Your task to perform on an android device: Clear the cart on walmart.com. Add "jbl flip 4" to the cart on walmart.com, then select checkout. Image 0: 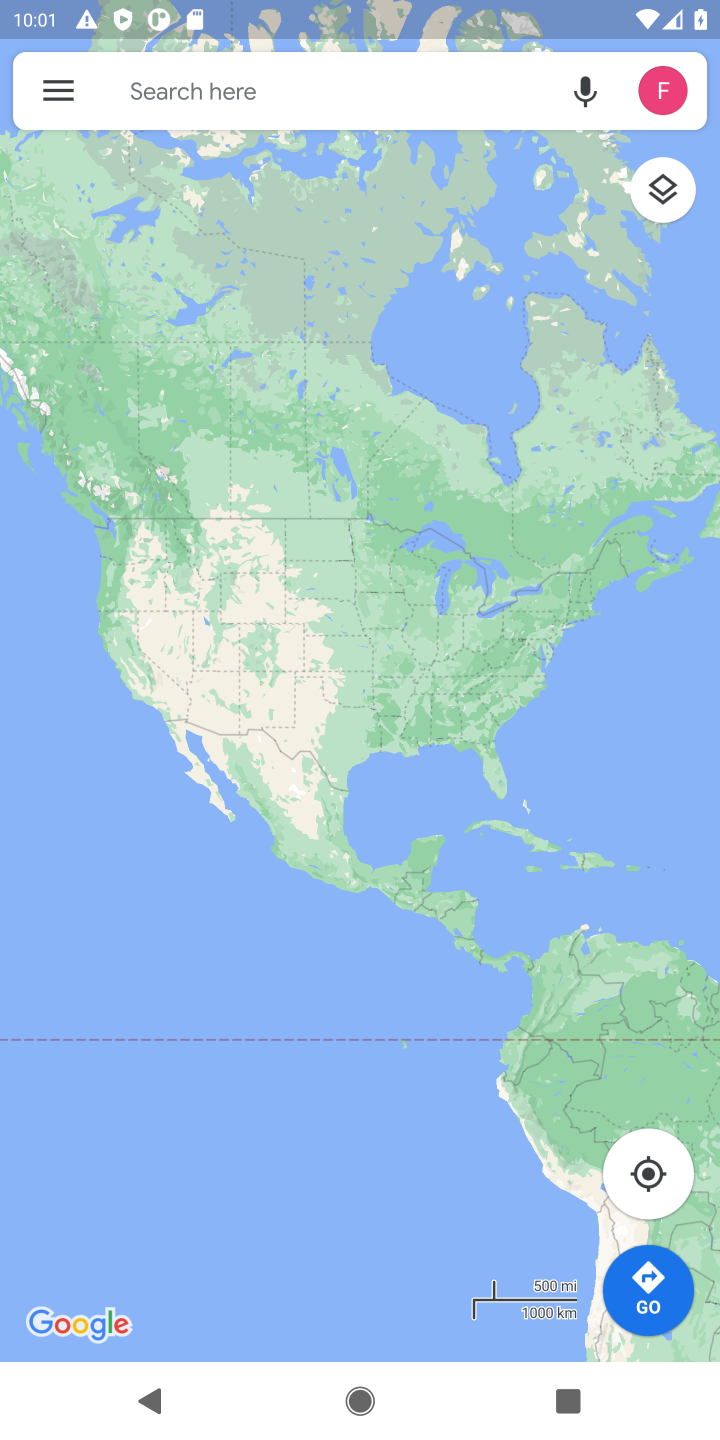
Step 0: press home button
Your task to perform on an android device: Clear the cart on walmart.com. Add "jbl flip 4" to the cart on walmart.com, then select checkout. Image 1: 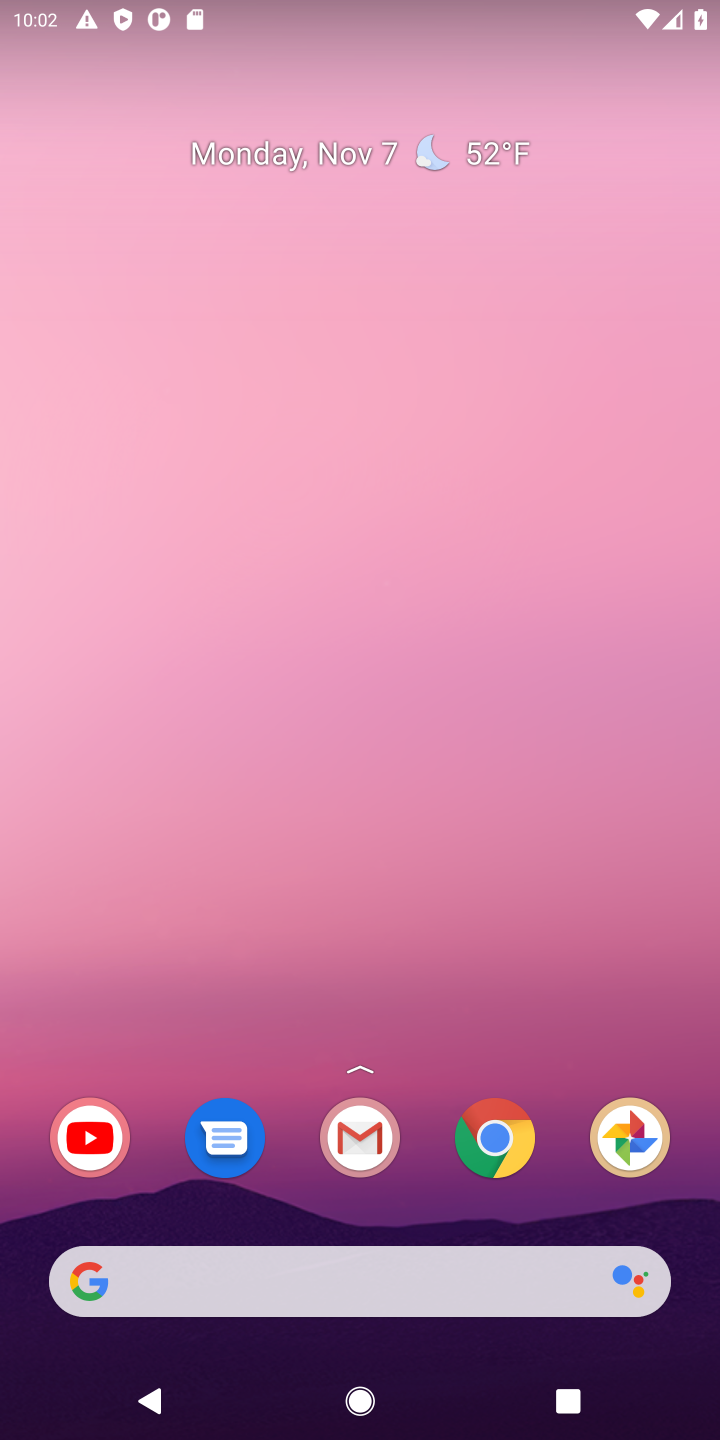
Step 1: click (522, 1128)
Your task to perform on an android device: Clear the cart on walmart.com. Add "jbl flip 4" to the cart on walmart.com, then select checkout. Image 2: 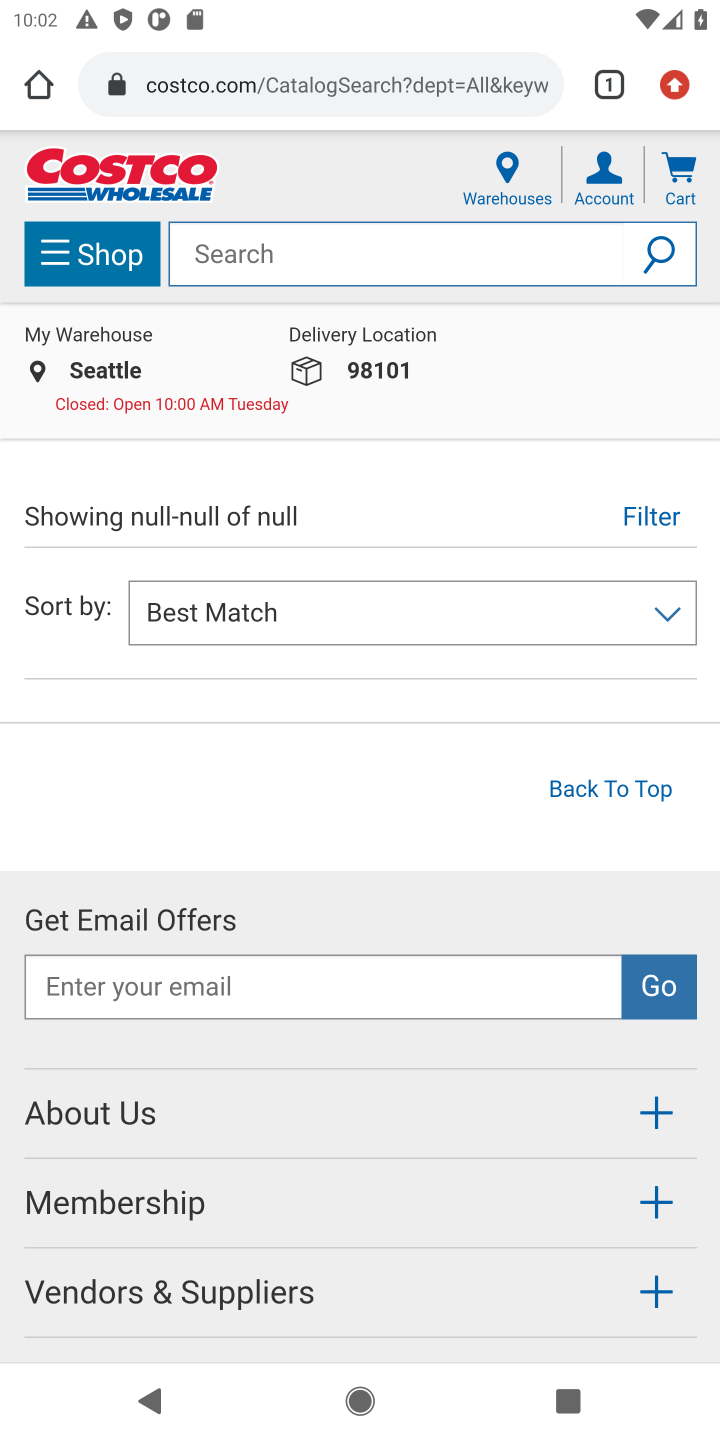
Step 2: click (282, 85)
Your task to perform on an android device: Clear the cart on walmart.com. Add "jbl flip 4" to the cart on walmart.com, then select checkout. Image 3: 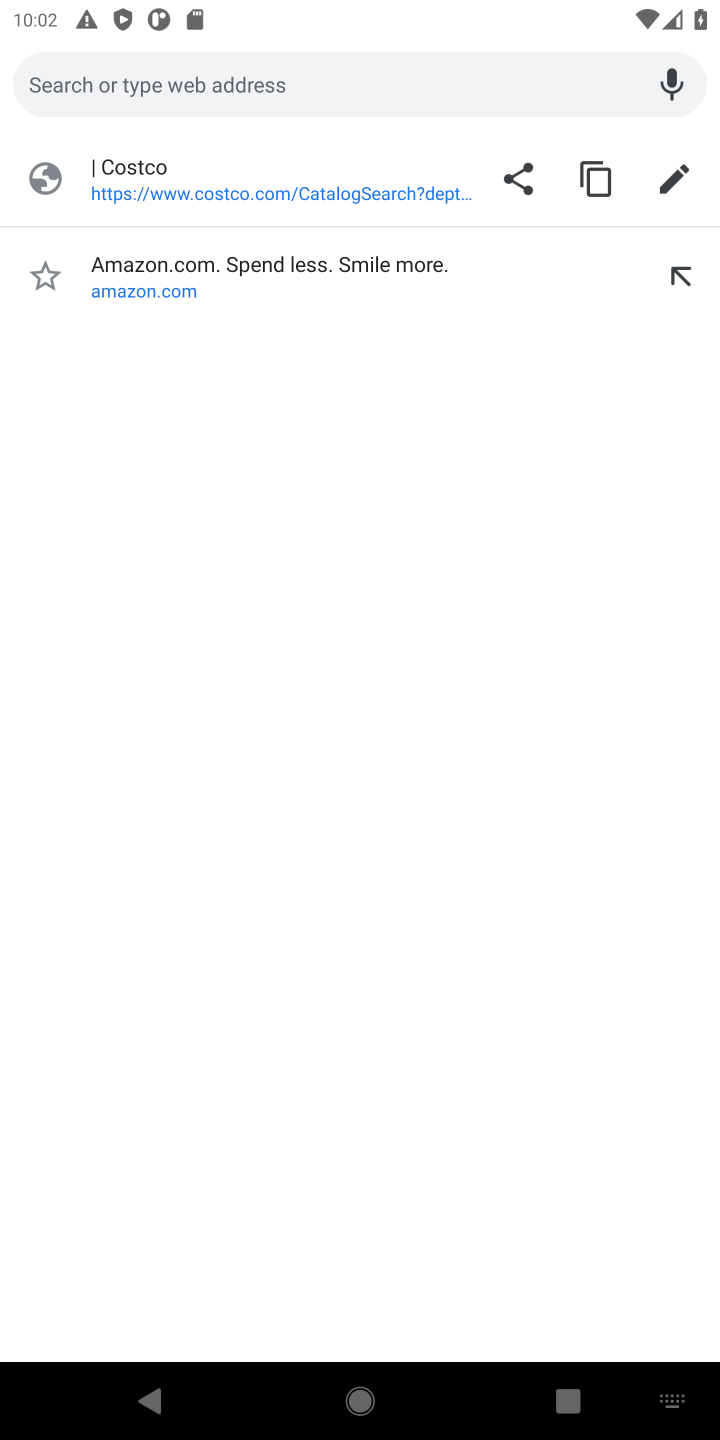
Step 3: type "walmart"
Your task to perform on an android device: Clear the cart on walmart.com. Add "jbl flip 4" to the cart on walmart.com, then select checkout. Image 4: 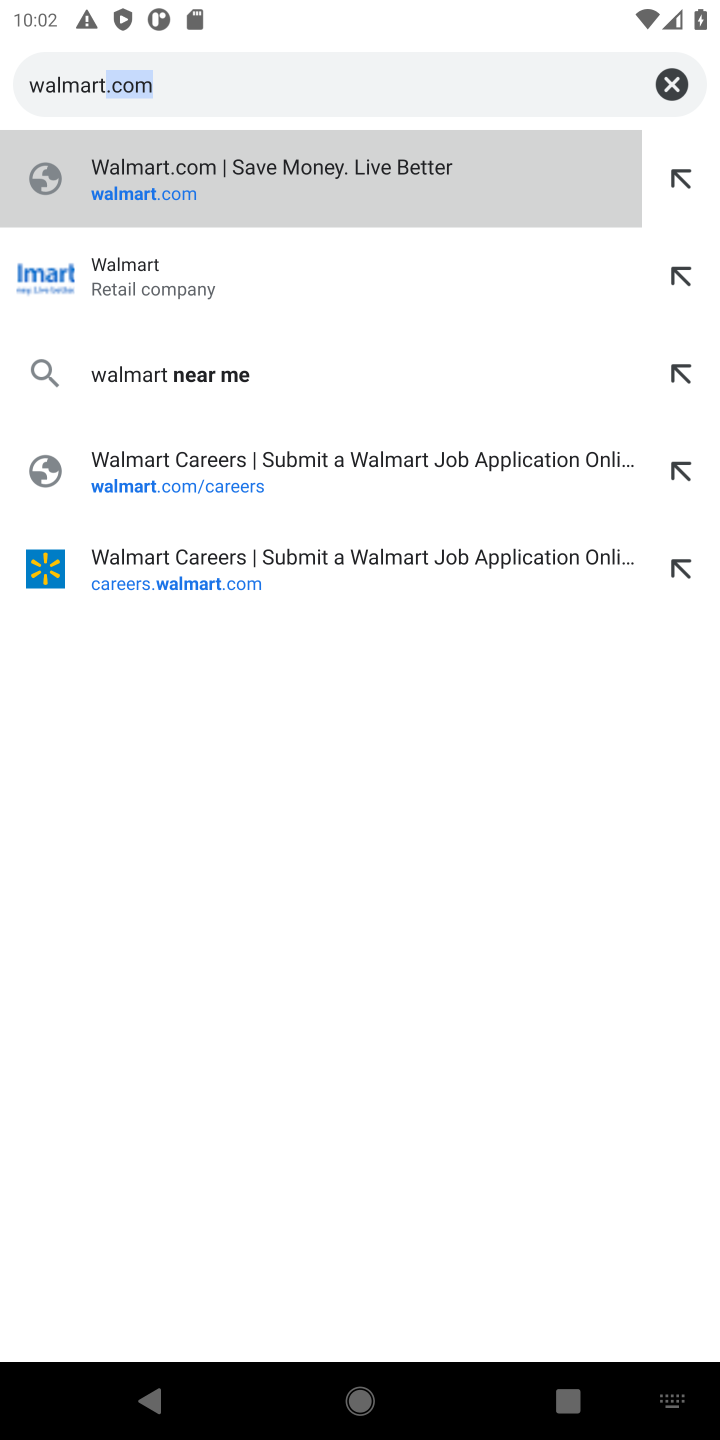
Step 4: click (128, 282)
Your task to perform on an android device: Clear the cart on walmart.com. Add "jbl flip 4" to the cart on walmart.com, then select checkout. Image 5: 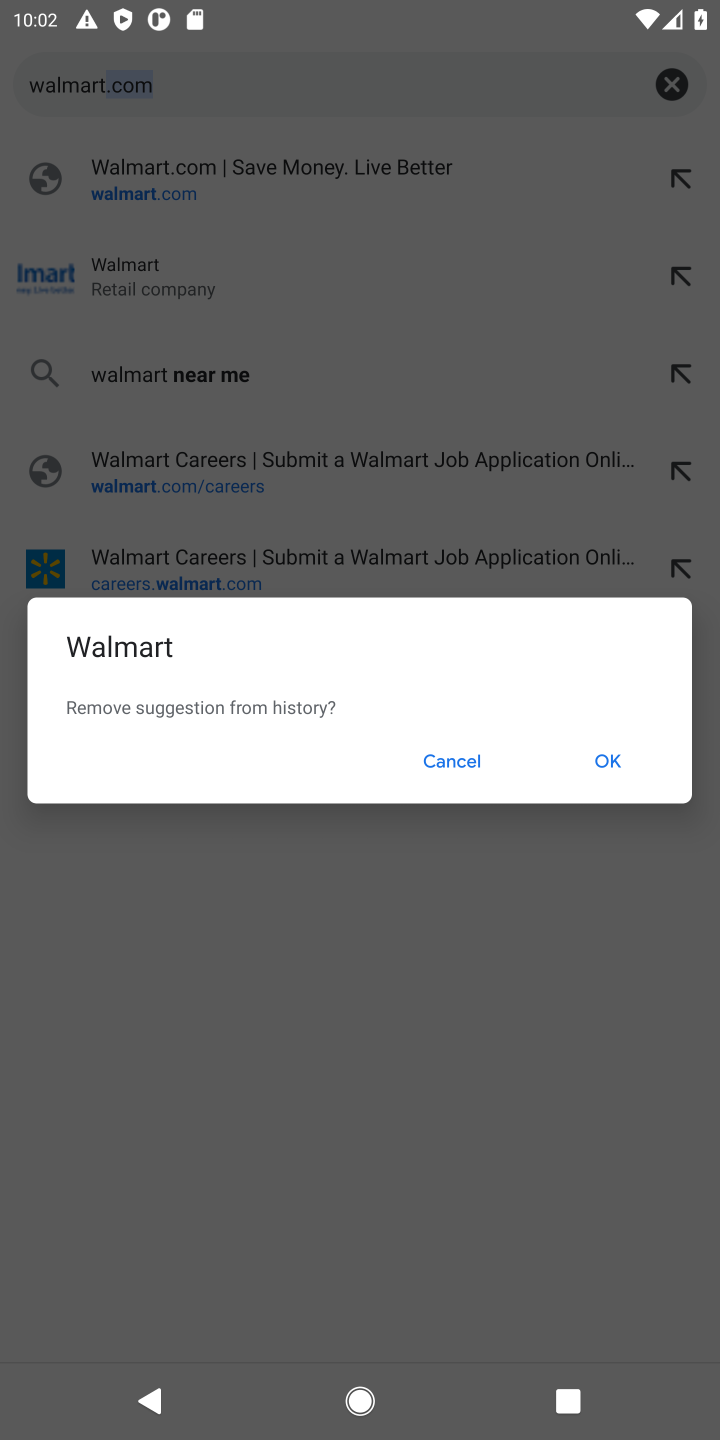
Step 5: click (602, 770)
Your task to perform on an android device: Clear the cart on walmart.com. Add "jbl flip 4" to the cart on walmart.com, then select checkout. Image 6: 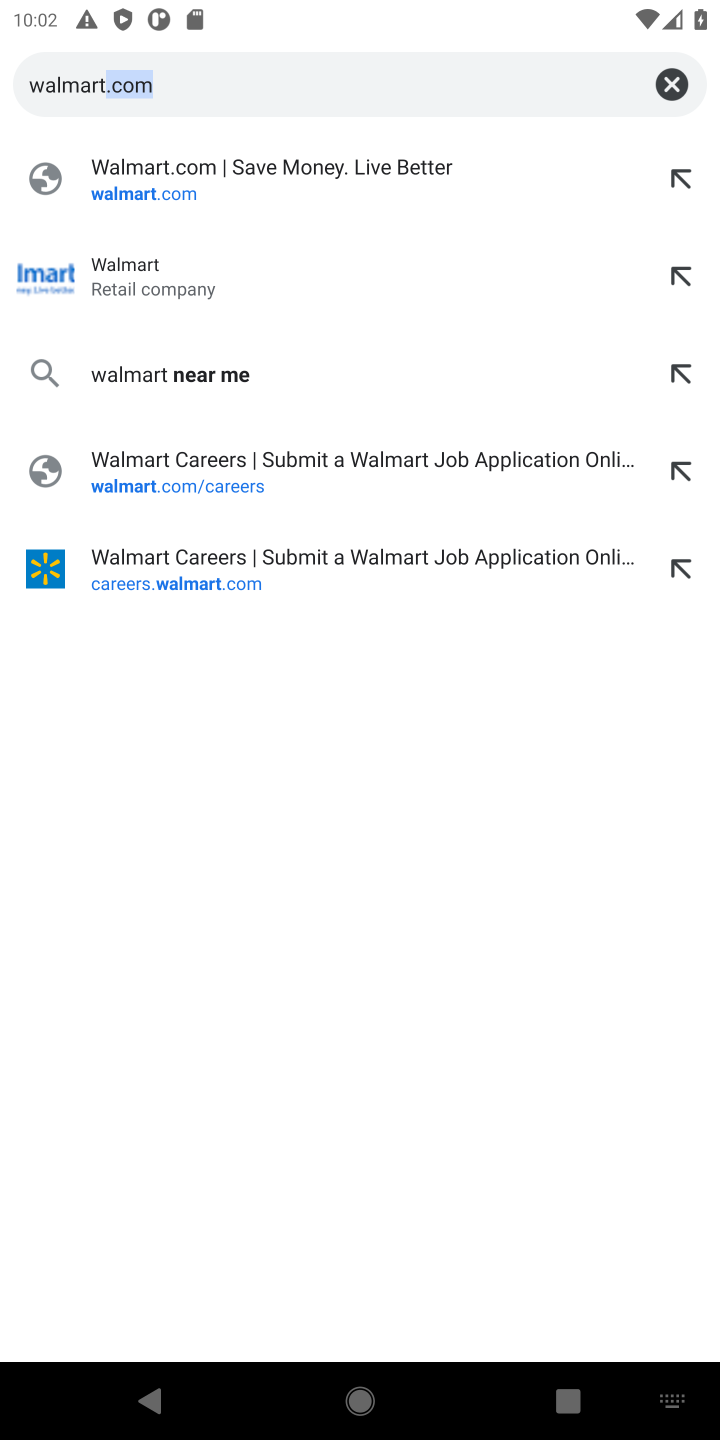
Step 6: click (106, 260)
Your task to perform on an android device: Clear the cart on walmart.com. Add "jbl flip 4" to the cart on walmart.com, then select checkout. Image 7: 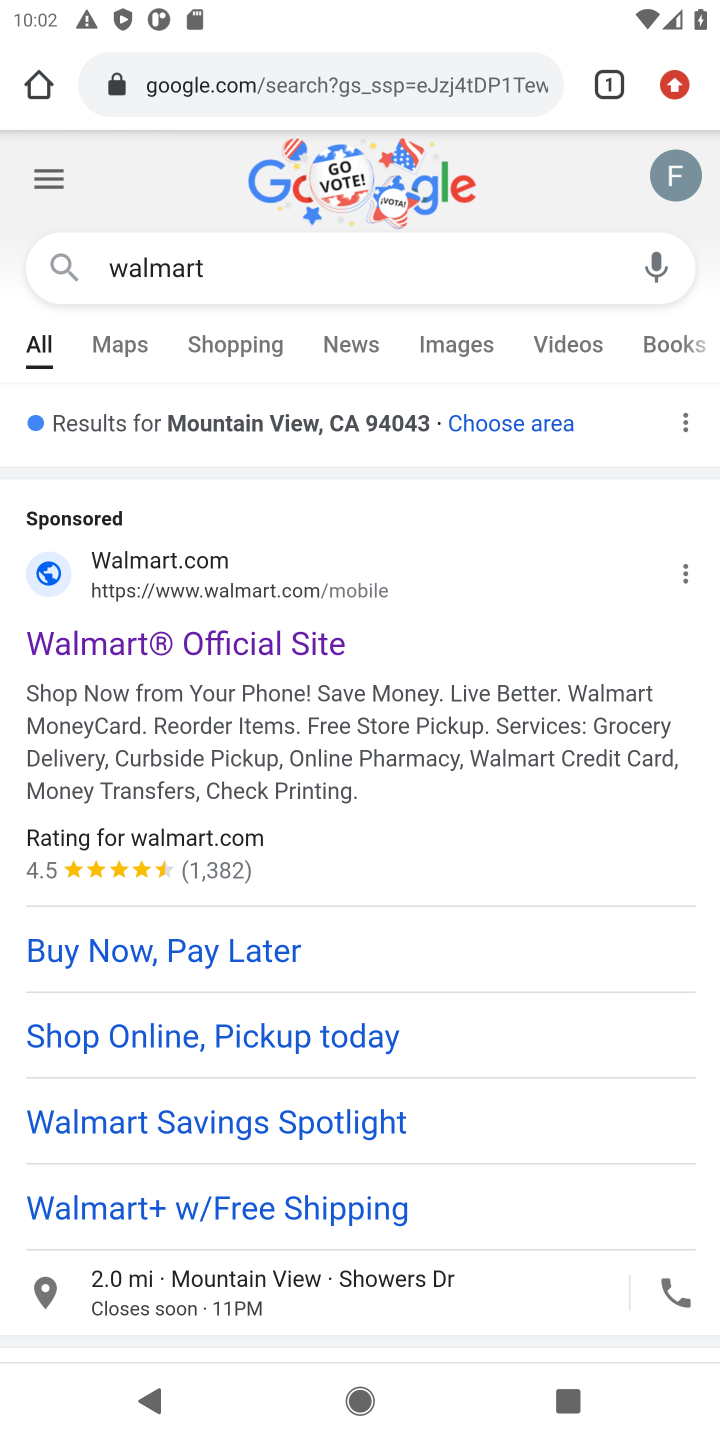
Step 7: drag from (240, 1034) to (384, 452)
Your task to perform on an android device: Clear the cart on walmart.com. Add "jbl flip 4" to the cart on walmart.com, then select checkout. Image 8: 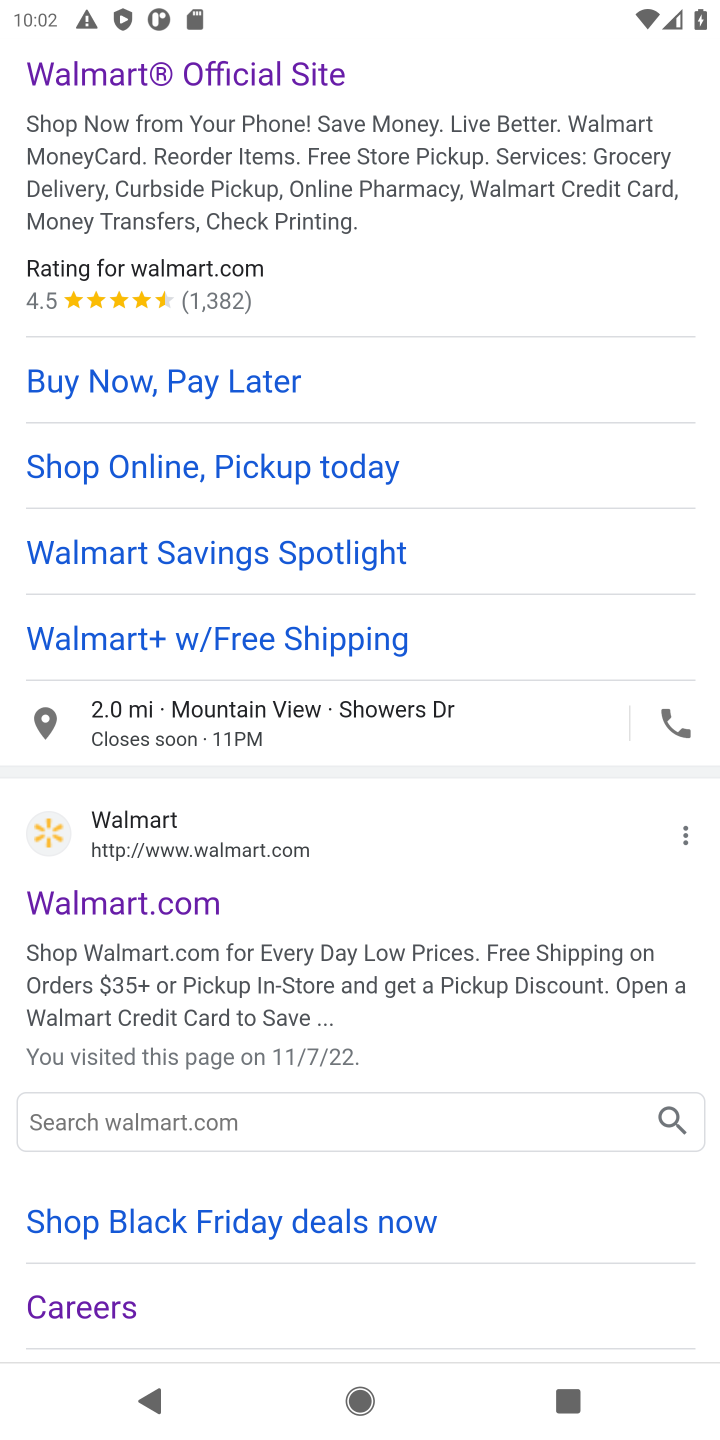
Step 8: click (112, 908)
Your task to perform on an android device: Clear the cart on walmart.com. Add "jbl flip 4" to the cart on walmart.com, then select checkout. Image 9: 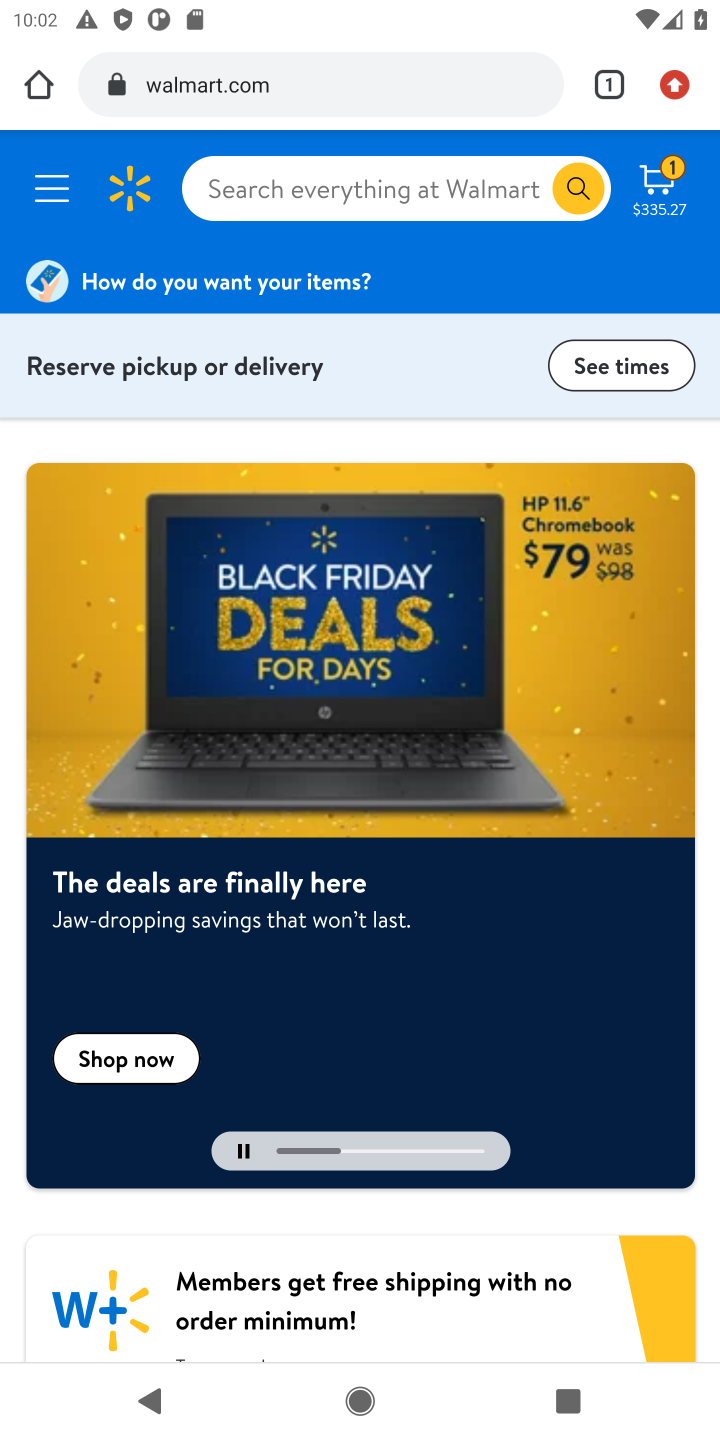
Step 9: click (310, 175)
Your task to perform on an android device: Clear the cart on walmart.com. Add "jbl flip 4" to the cart on walmart.com, then select checkout. Image 10: 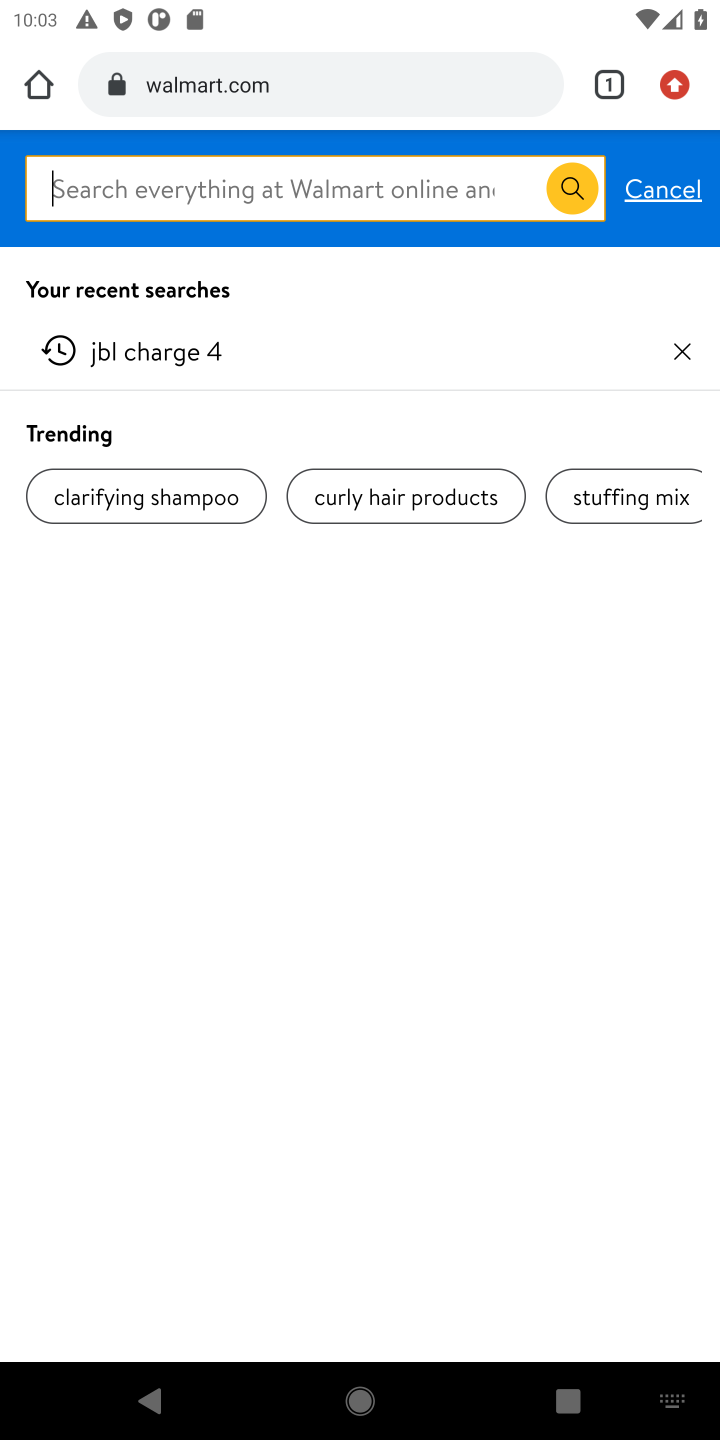
Step 10: type "jbl flip 4"
Your task to perform on an android device: Clear the cart on walmart.com. Add "jbl flip 4" to the cart on walmart.com, then select checkout. Image 11: 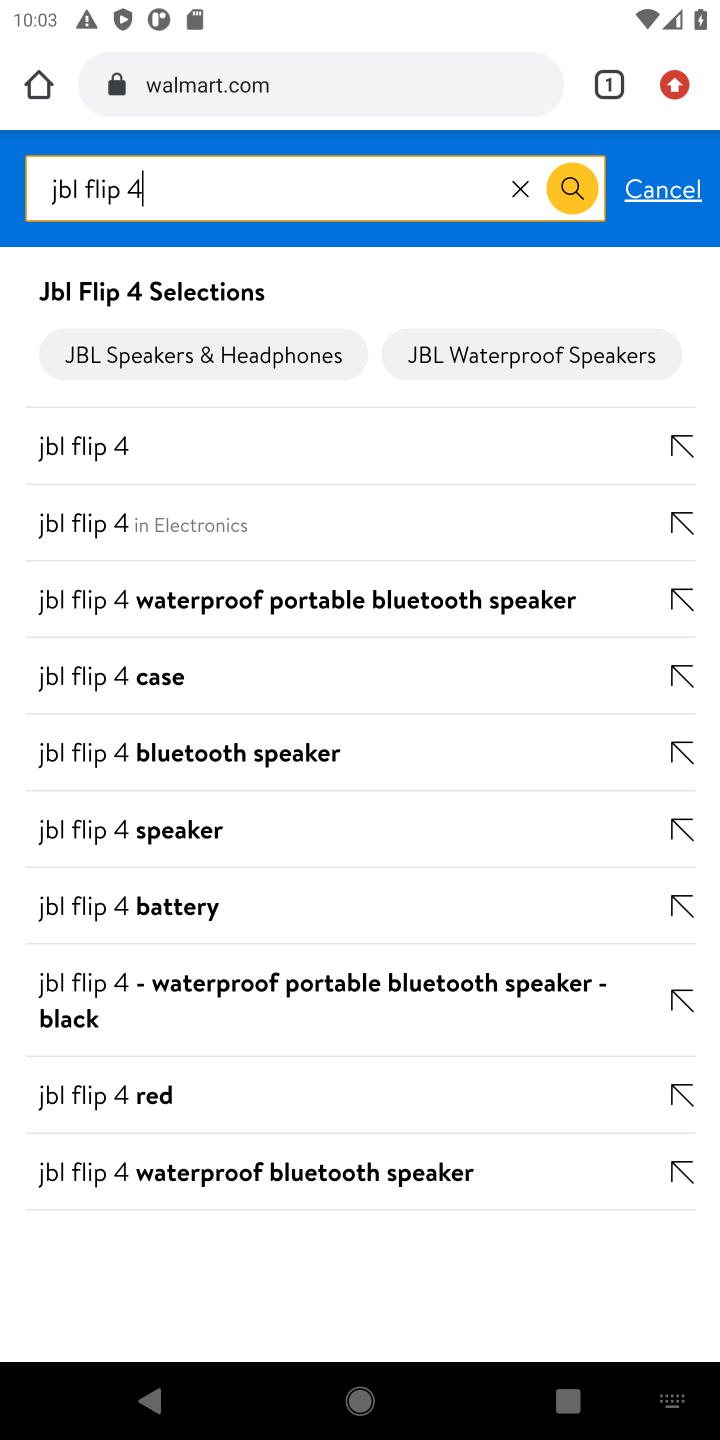
Step 11: click (98, 437)
Your task to perform on an android device: Clear the cart on walmart.com. Add "jbl flip 4" to the cart on walmart.com, then select checkout. Image 12: 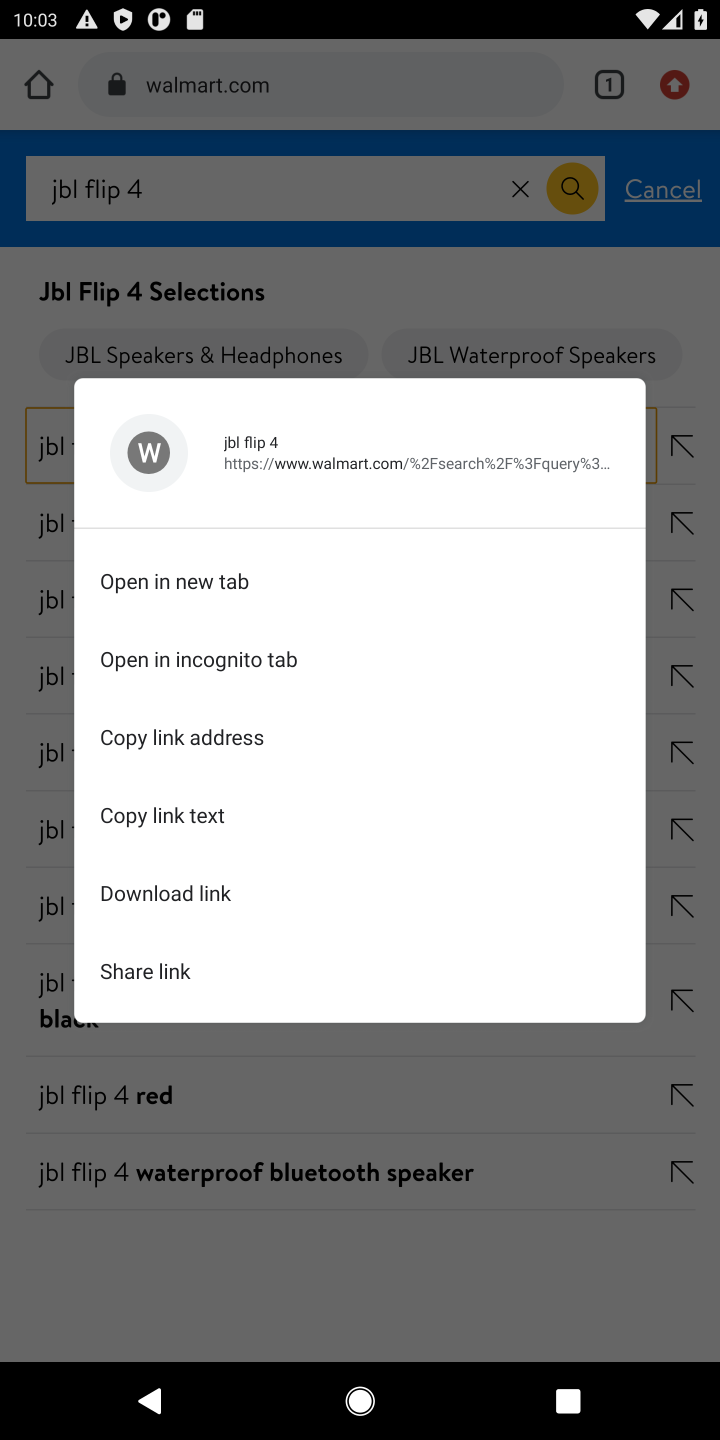
Step 12: click (171, 589)
Your task to perform on an android device: Clear the cart on walmart.com. Add "jbl flip 4" to the cart on walmart.com, then select checkout. Image 13: 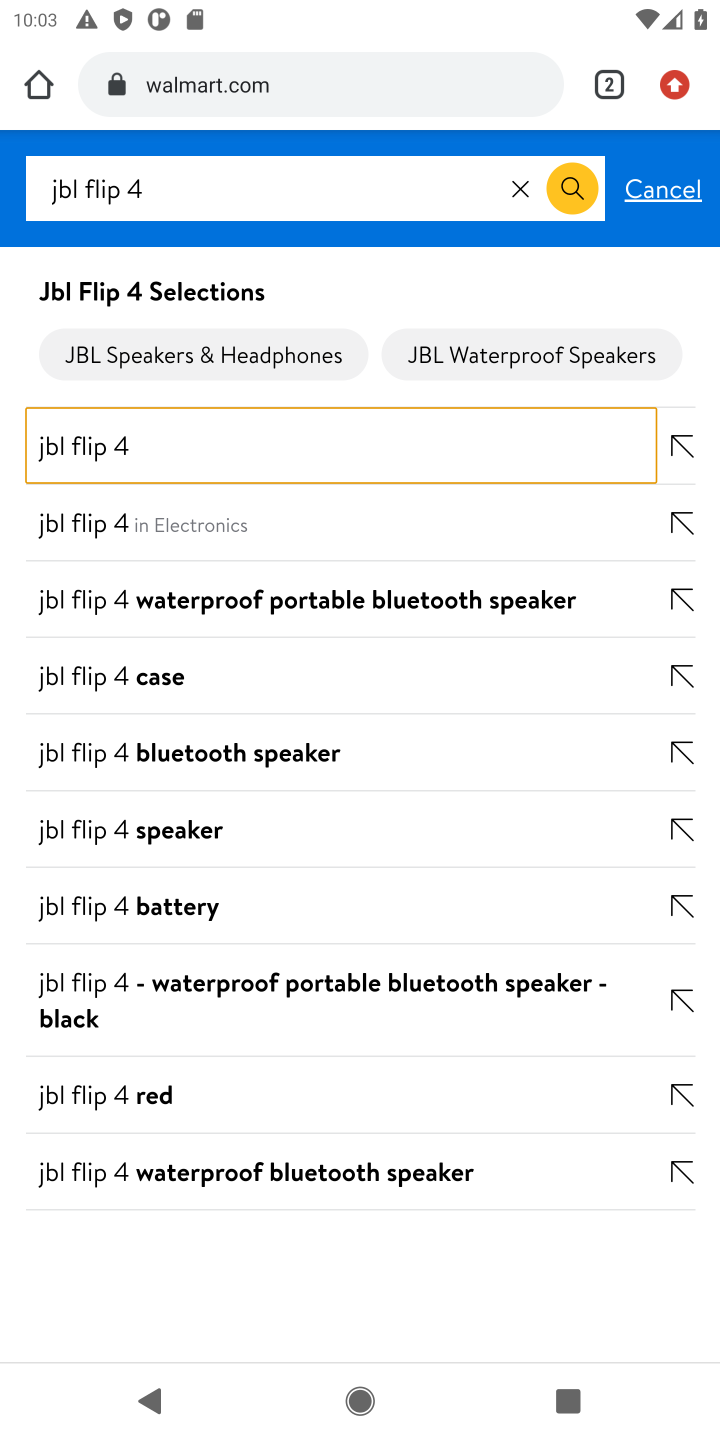
Step 13: click (184, 981)
Your task to perform on an android device: Clear the cart on walmart.com. Add "jbl flip 4" to the cart on walmart.com, then select checkout. Image 14: 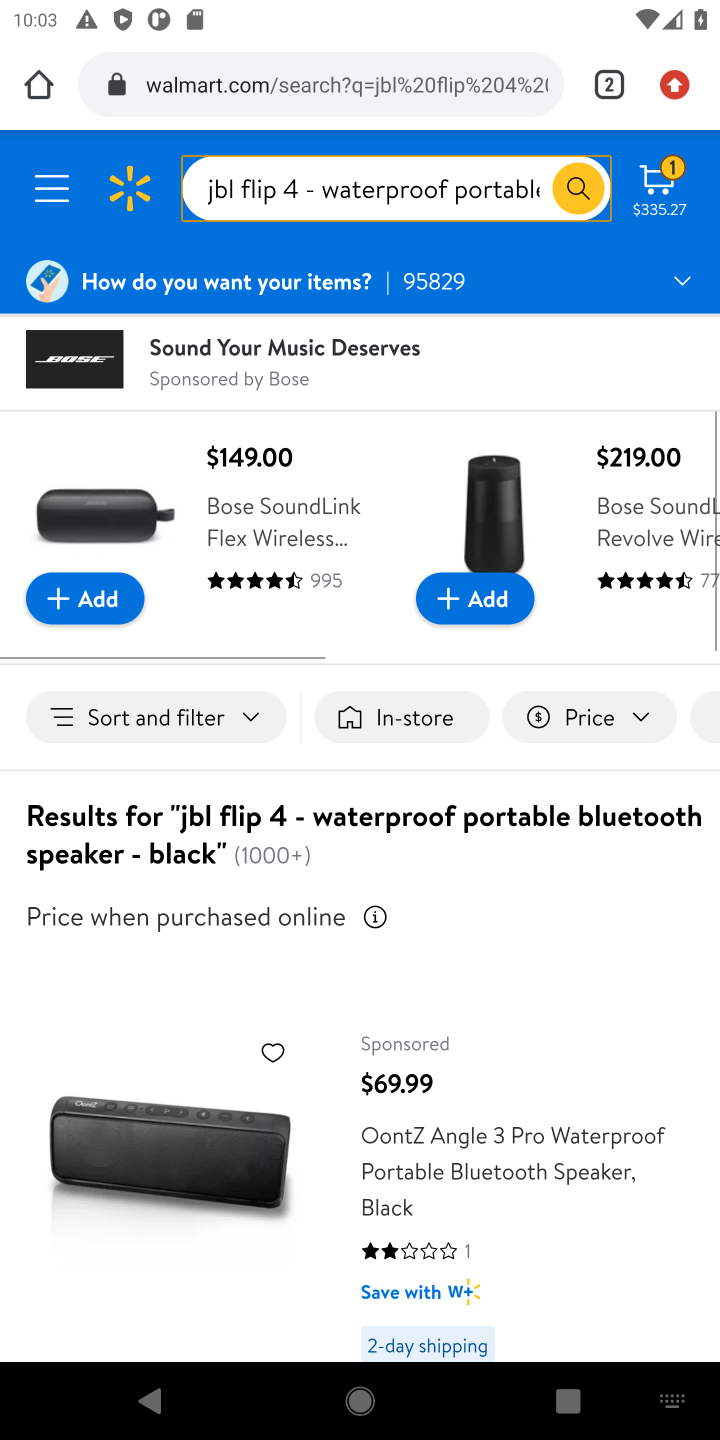
Step 14: drag from (282, 1063) to (357, 387)
Your task to perform on an android device: Clear the cart on walmart.com. Add "jbl flip 4" to the cart on walmart.com, then select checkout. Image 15: 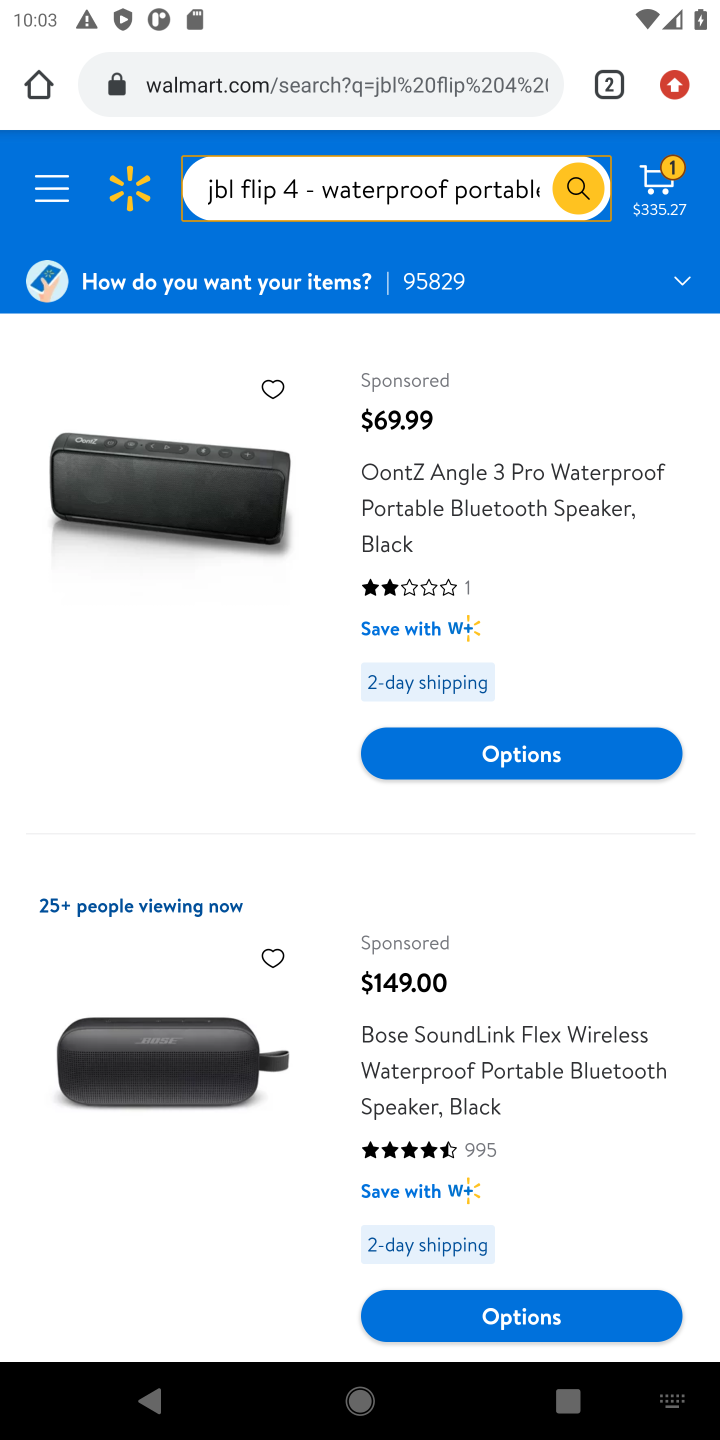
Step 15: click (411, 1075)
Your task to perform on an android device: Clear the cart on walmart.com. Add "jbl flip 4" to the cart on walmart.com, then select checkout. Image 16: 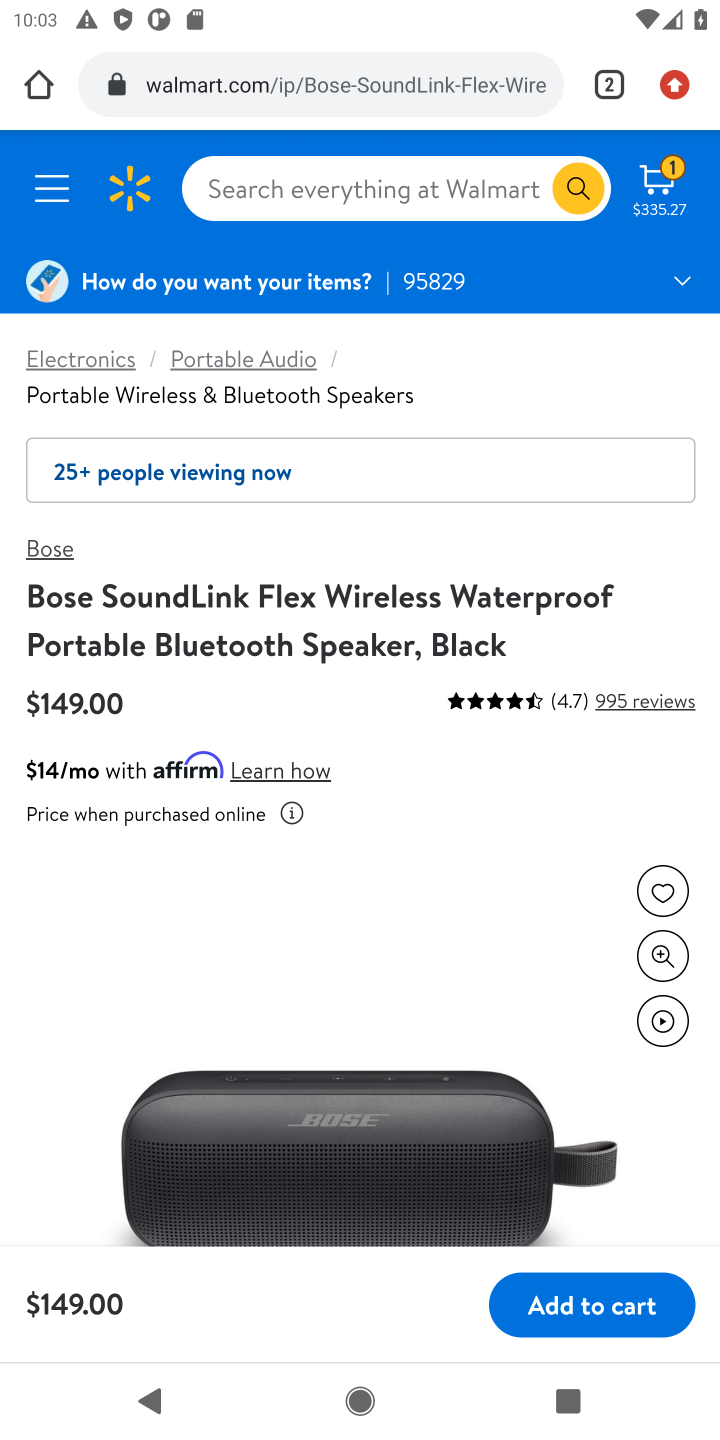
Step 16: drag from (324, 631) to (355, 379)
Your task to perform on an android device: Clear the cart on walmart.com. Add "jbl flip 4" to the cart on walmart.com, then select checkout. Image 17: 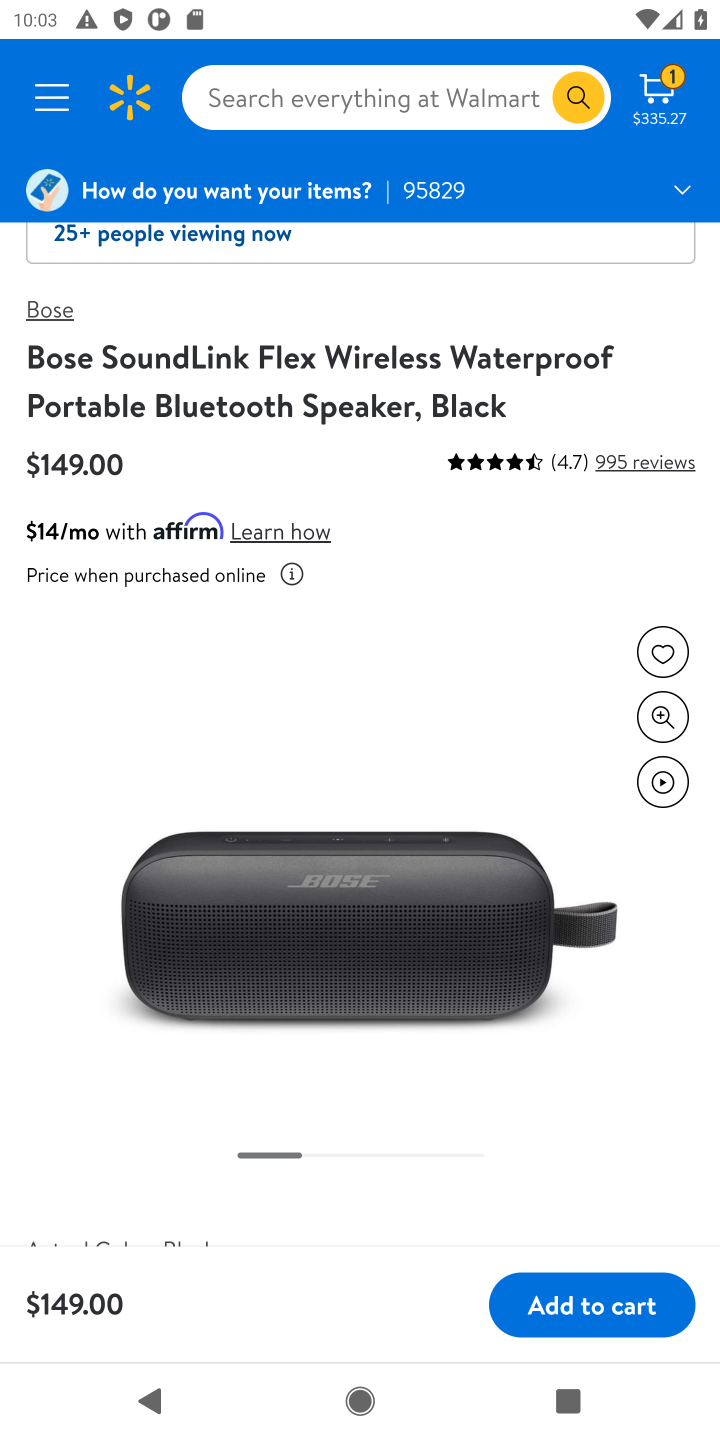
Step 17: click (631, 1312)
Your task to perform on an android device: Clear the cart on walmart.com. Add "jbl flip 4" to the cart on walmart.com, then select checkout. Image 18: 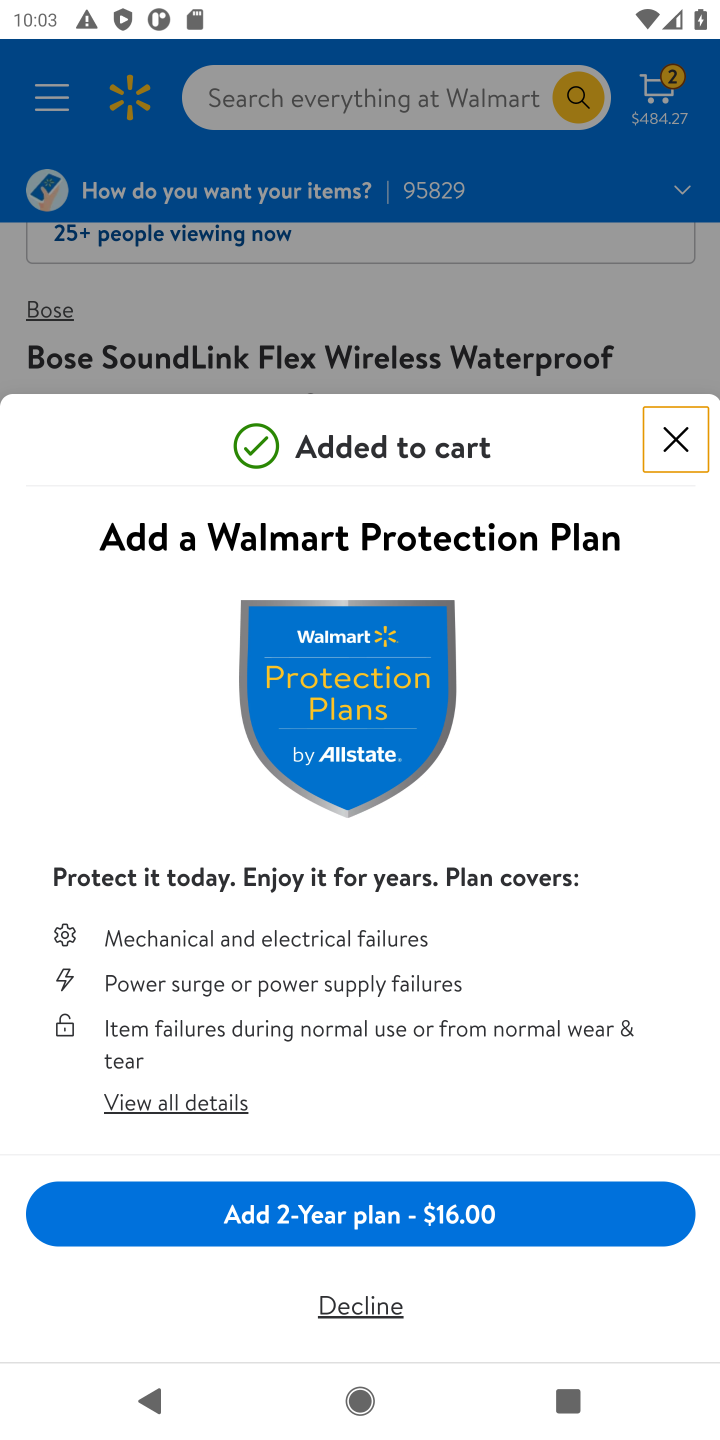
Step 18: click (692, 444)
Your task to perform on an android device: Clear the cart on walmart.com. Add "jbl flip 4" to the cart on walmart.com, then select checkout. Image 19: 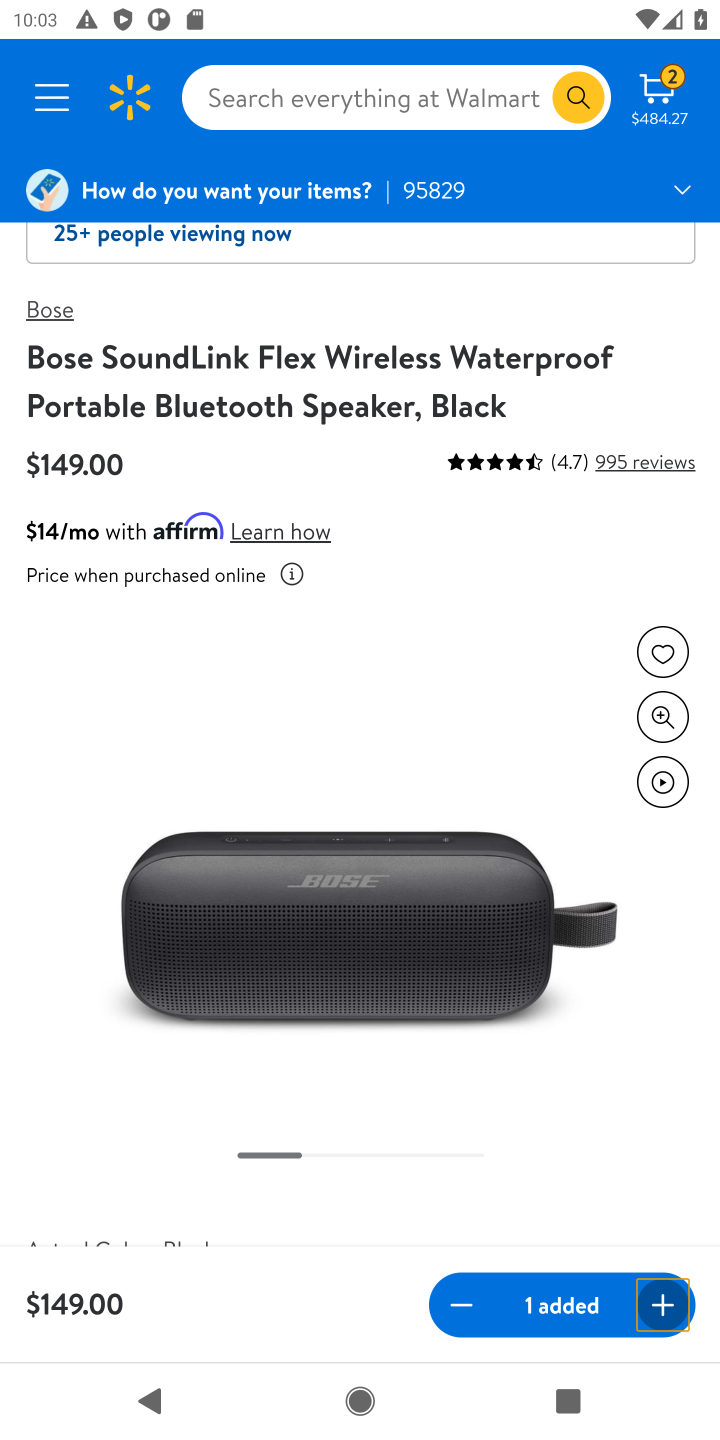
Step 19: click (663, 89)
Your task to perform on an android device: Clear the cart on walmart.com. Add "jbl flip 4" to the cart on walmart.com, then select checkout. Image 20: 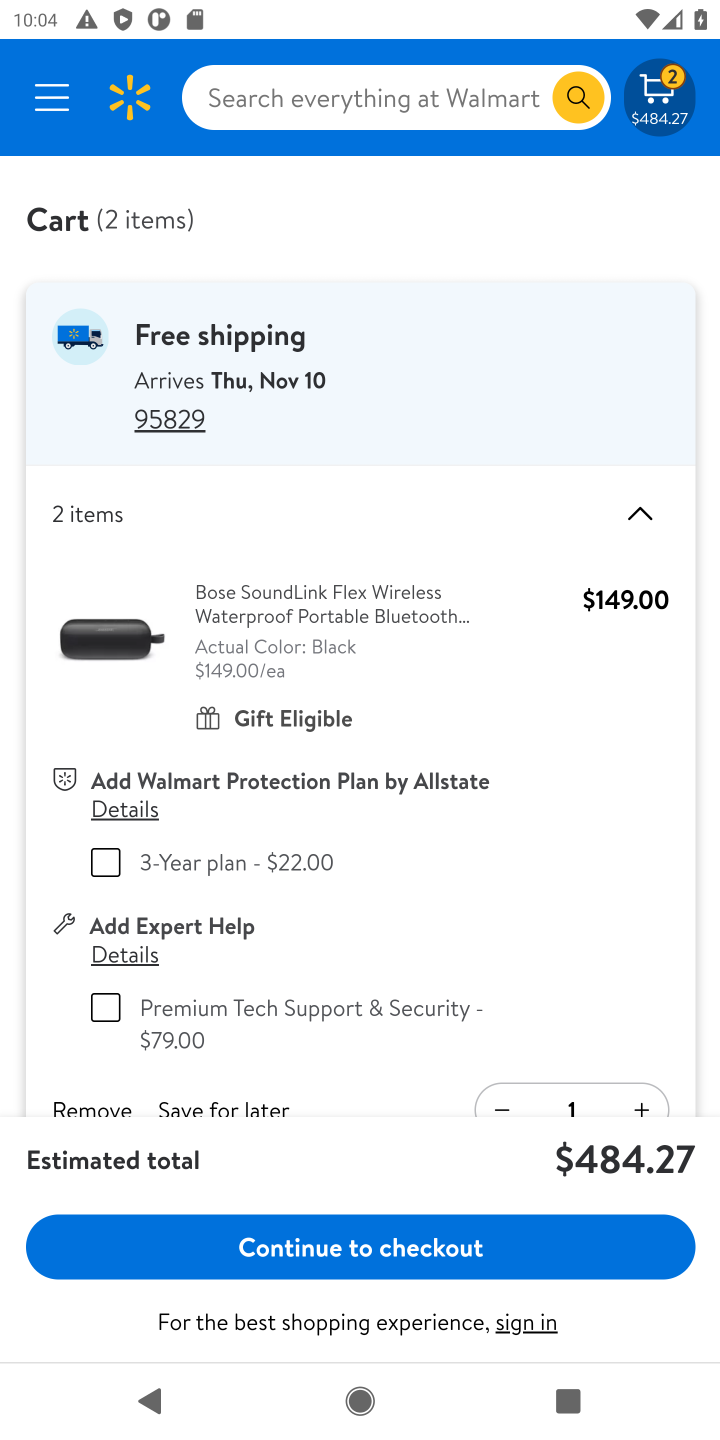
Step 20: click (306, 1250)
Your task to perform on an android device: Clear the cart on walmart.com. Add "jbl flip 4" to the cart on walmart.com, then select checkout. Image 21: 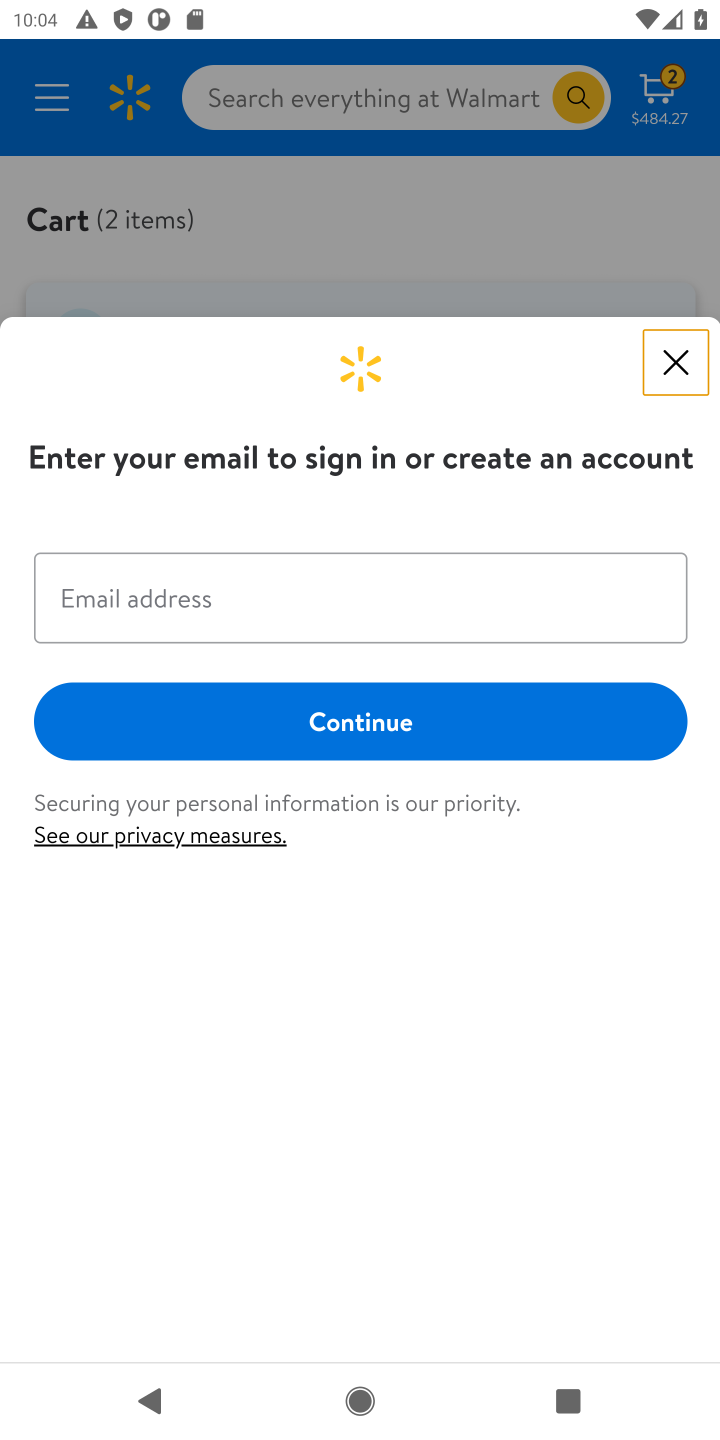
Step 21: click (679, 369)
Your task to perform on an android device: Clear the cart on walmart.com. Add "jbl flip 4" to the cart on walmart.com, then select checkout. Image 22: 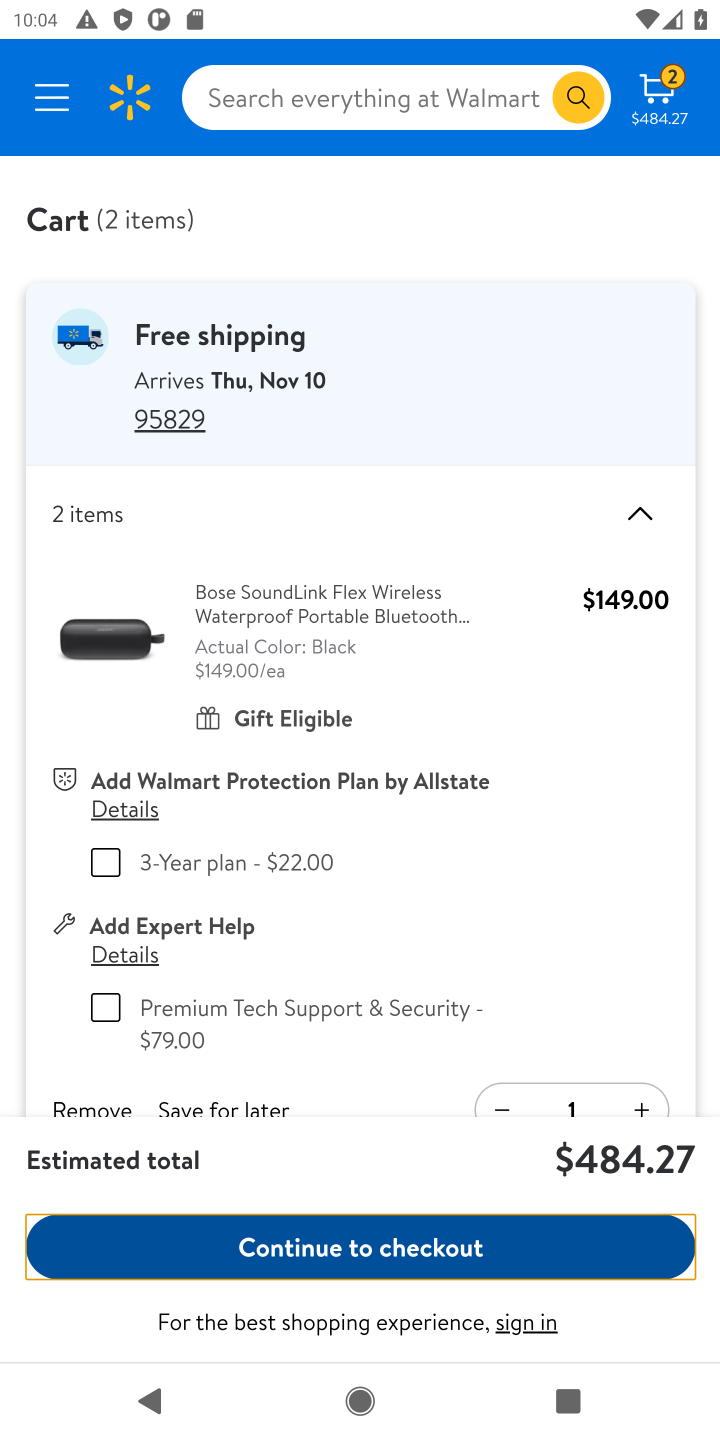
Step 22: task complete